Your task to perform on an android device: install app "PUBG MOBILE" Image 0: 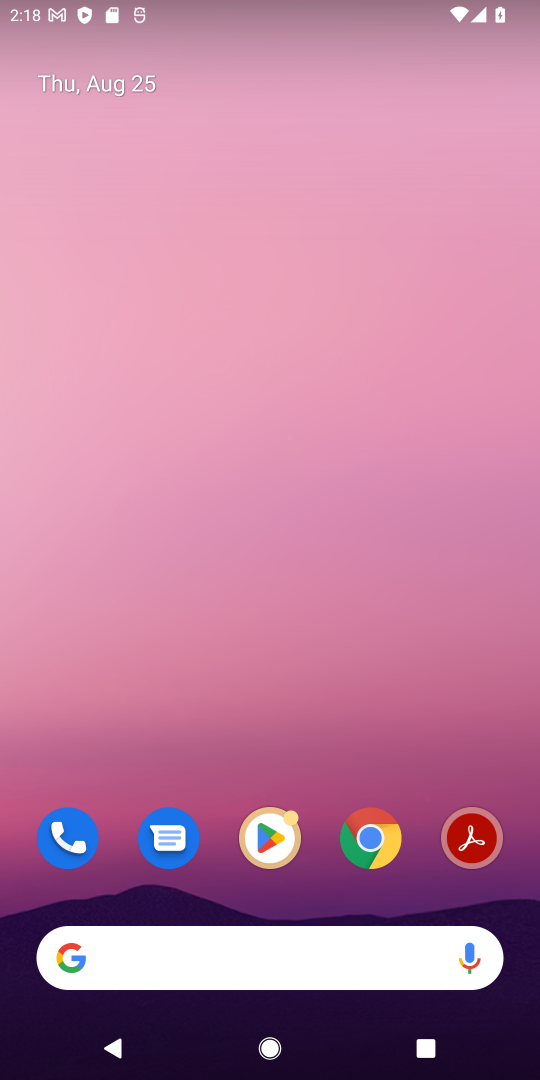
Step 0: click (269, 842)
Your task to perform on an android device: install app "PUBG MOBILE" Image 1: 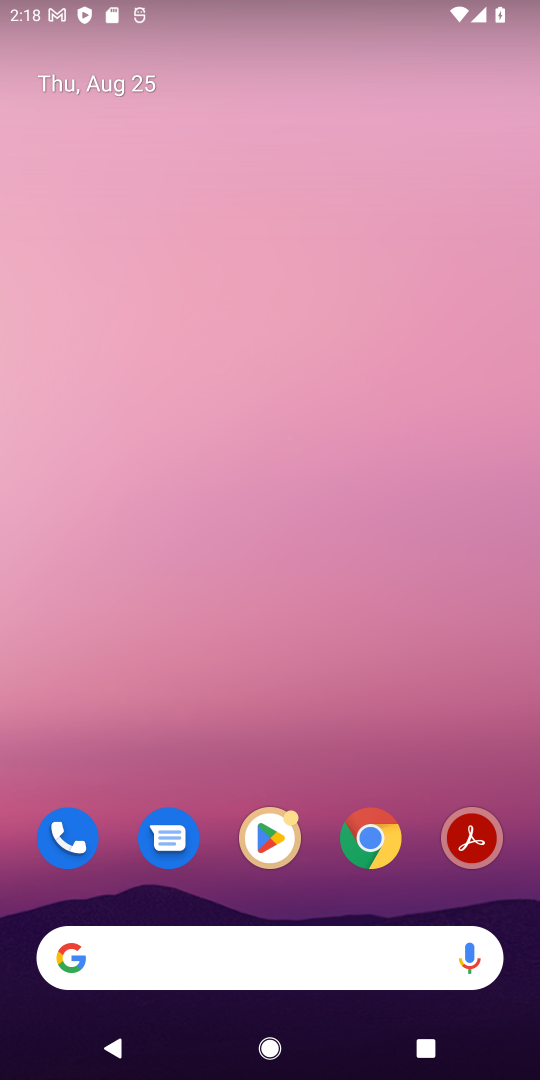
Step 1: click (264, 845)
Your task to perform on an android device: install app "PUBG MOBILE" Image 2: 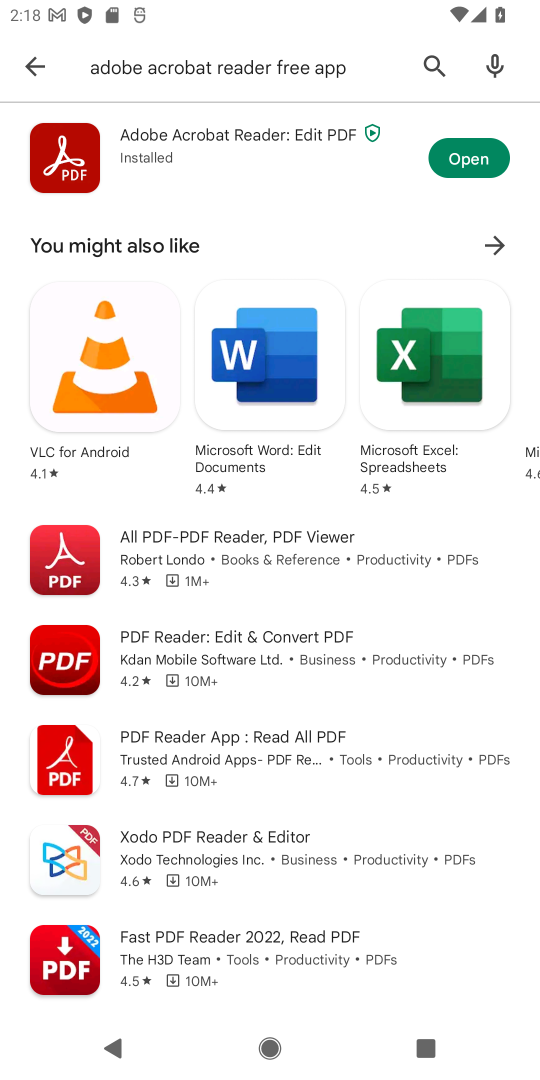
Step 2: click (36, 63)
Your task to perform on an android device: install app "PUBG MOBILE" Image 3: 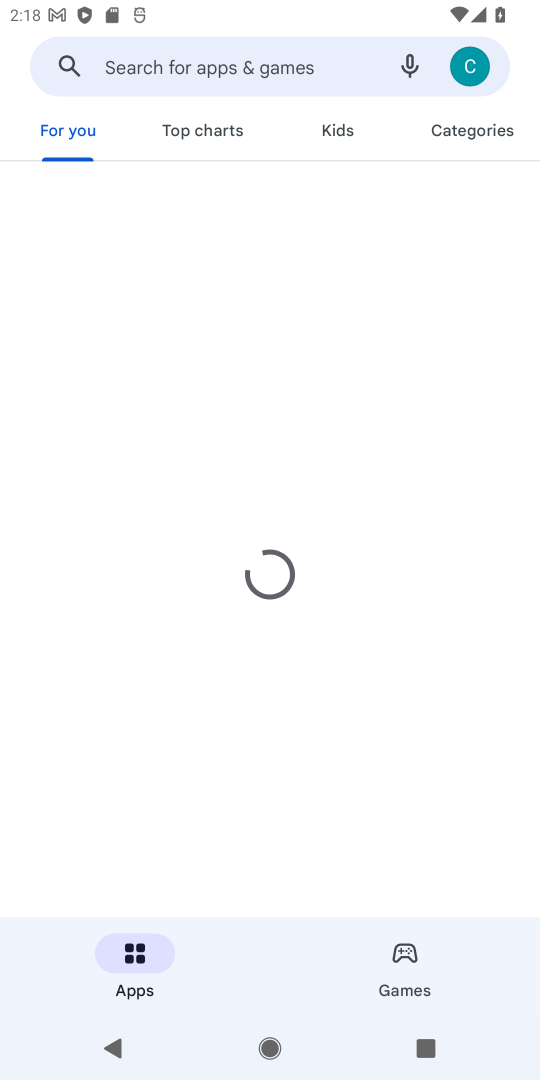
Step 3: click (247, 59)
Your task to perform on an android device: install app "PUBG MOBILE" Image 4: 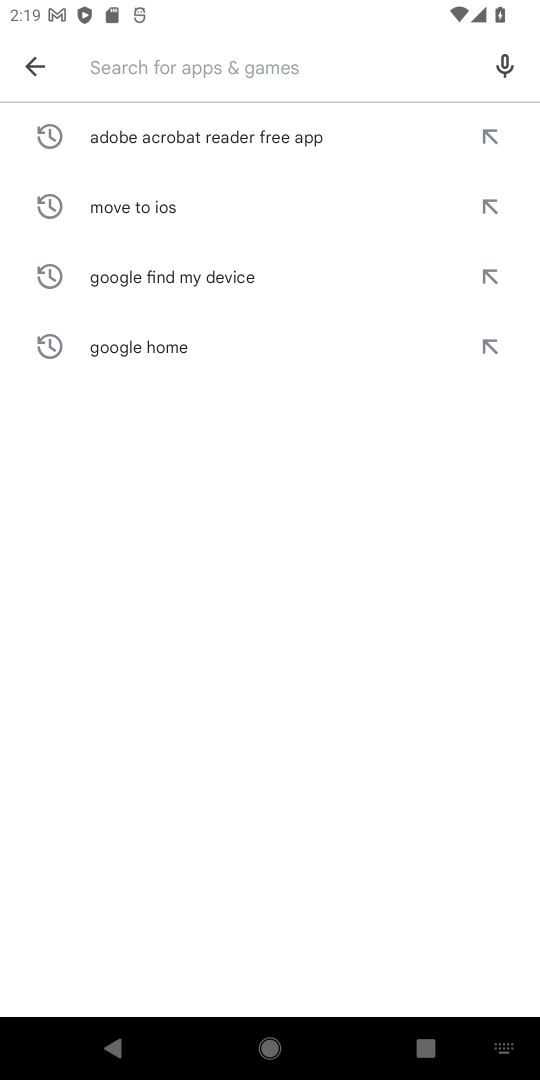
Step 4: type "PUBG MOBILE"
Your task to perform on an android device: install app "PUBG MOBILE" Image 5: 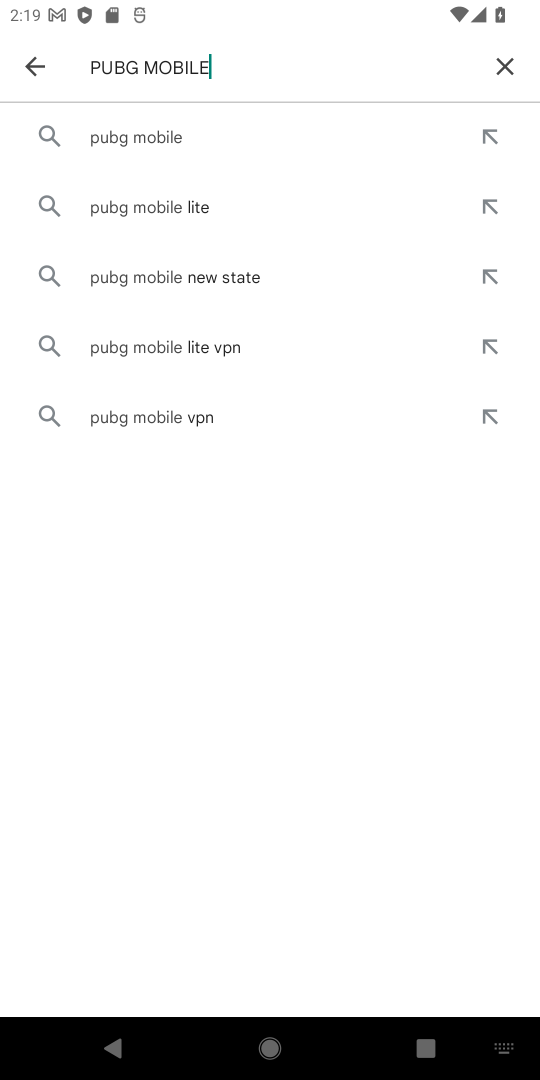
Step 5: click (148, 129)
Your task to perform on an android device: install app "PUBG MOBILE" Image 6: 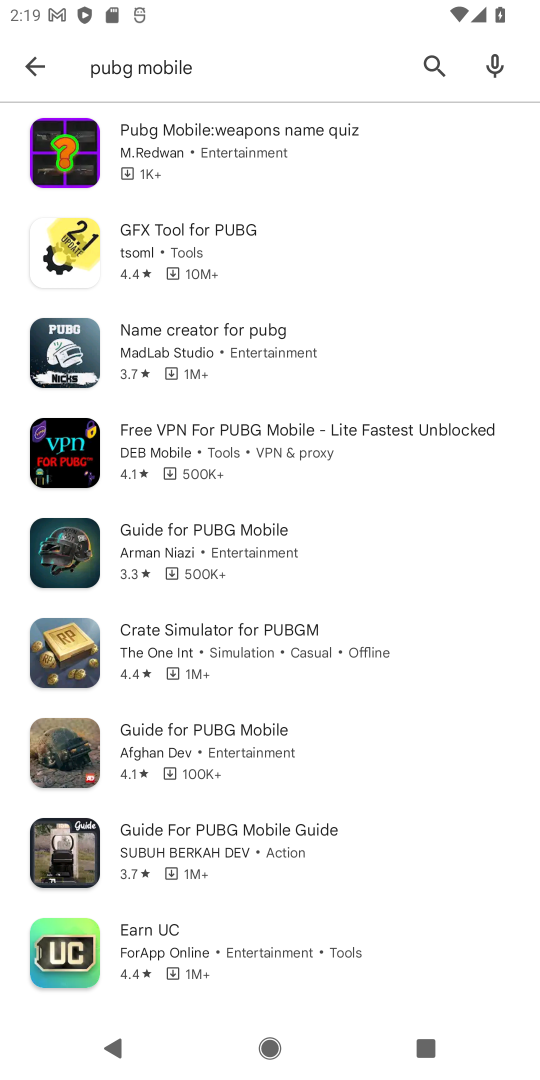
Step 6: click (188, 145)
Your task to perform on an android device: install app "PUBG MOBILE" Image 7: 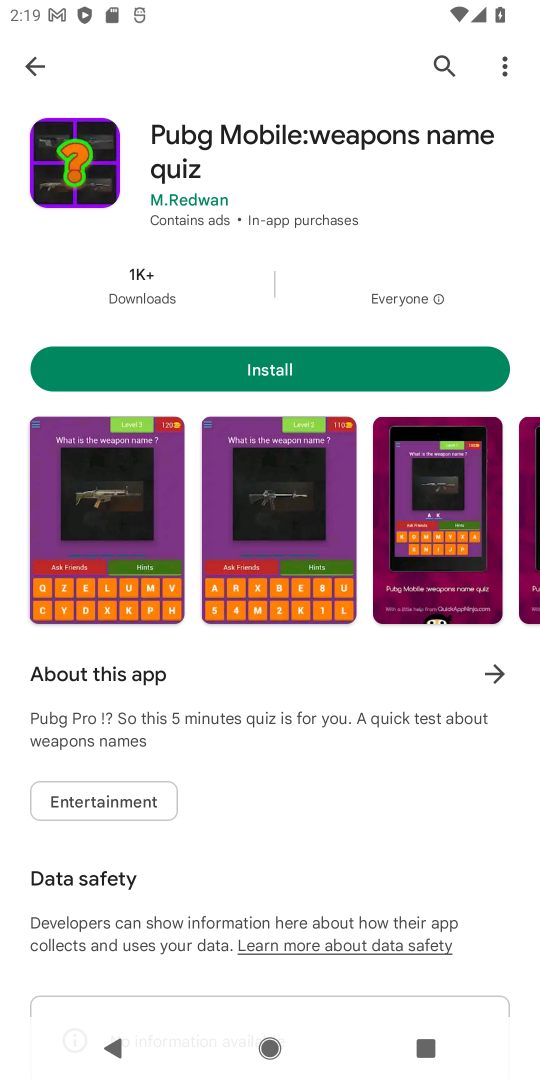
Step 7: click (291, 366)
Your task to perform on an android device: install app "PUBG MOBILE" Image 8: 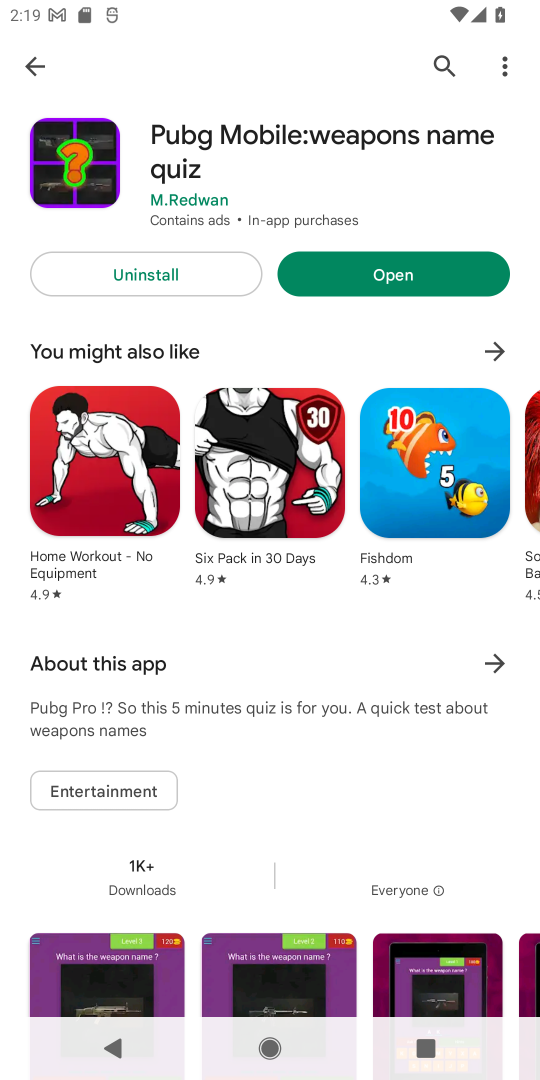
Step 8: click (387, 278)
Your task to perform on an android device: install app "PUBG MOBILE" Image 9: 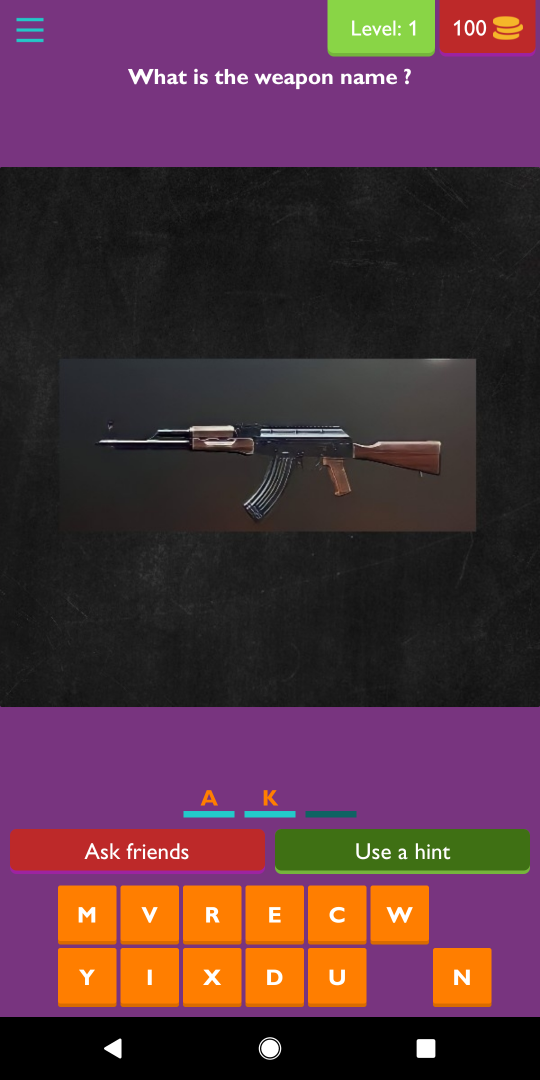
Step 9: task complete